Your task to perform on an android device: open app "Upside-Cash back on gas & food" Image 0: 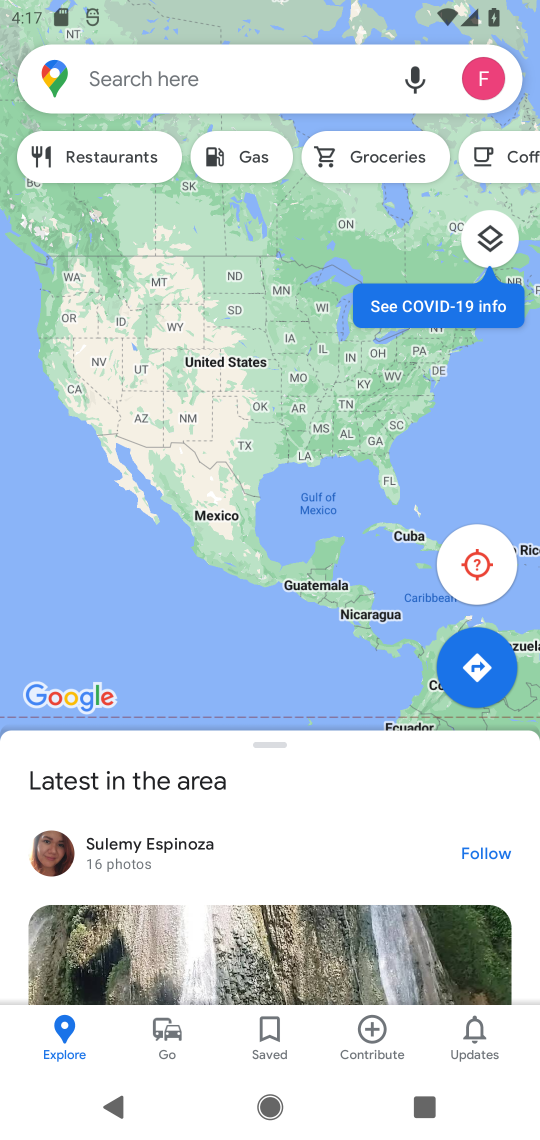
Step 0: press home button
Your task to perform on an android device: open app "Upside-Cash back on gas & food" Image 1: 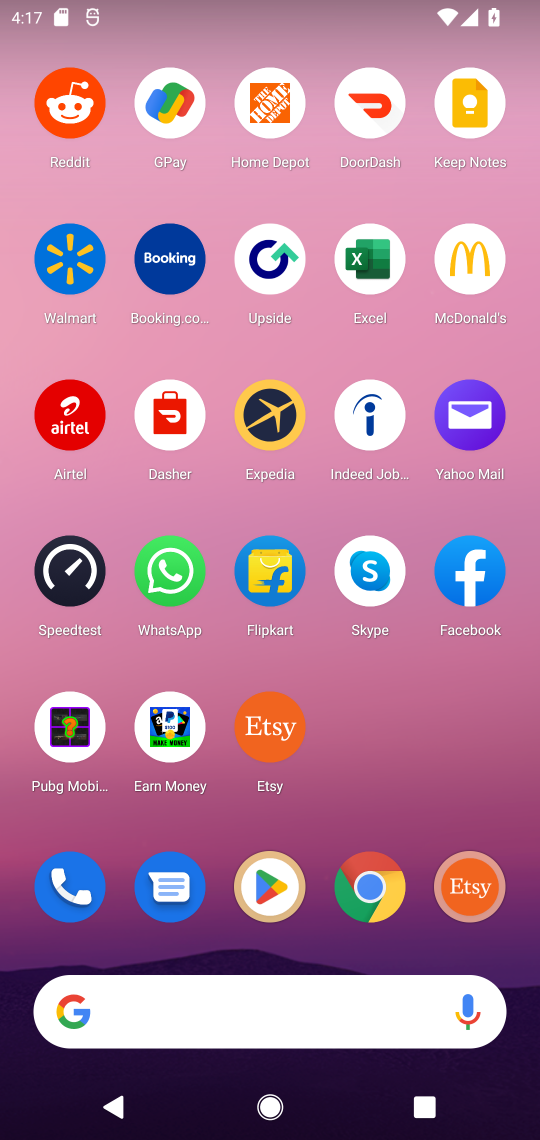
Step 1: click (263, 867)
Your task to perform on an android device: open app "Upside-Cash back on gas & food" Image 2: 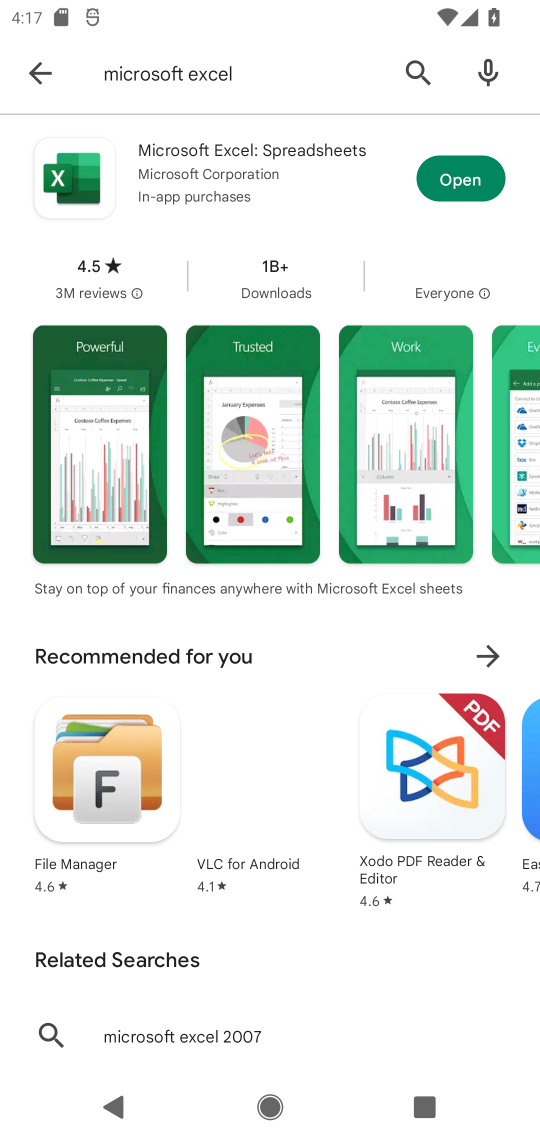
Step 2: click (29, 69)
Your task to perform on an android device: open app "Upside-Cash back on gas & food" Image 3: 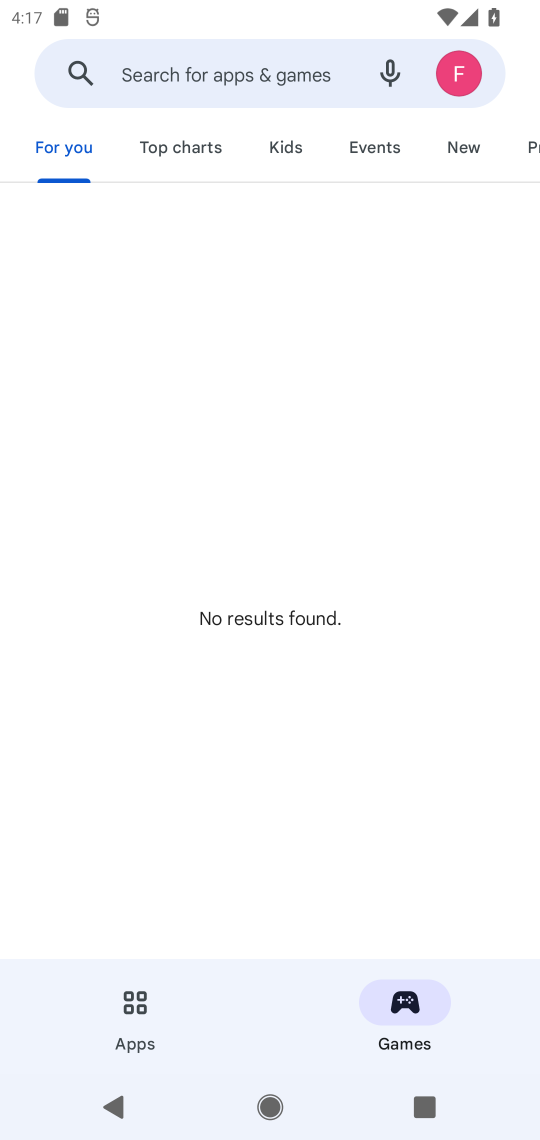
Step 3: click (153, 76)
Your task to perform on an android device: open app "Upside-Cash back on gas & food" Image 4: 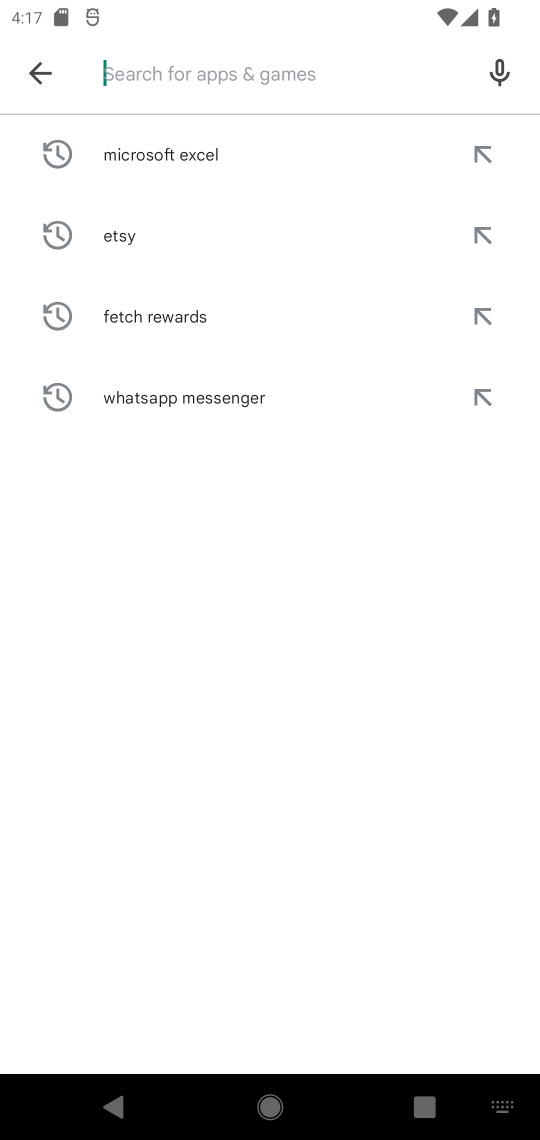
Step 4: type "Upside-Cash back on gas & food"
Your task to perform on an android device: open app "Upside-Cash back on gas & food" Image 5: 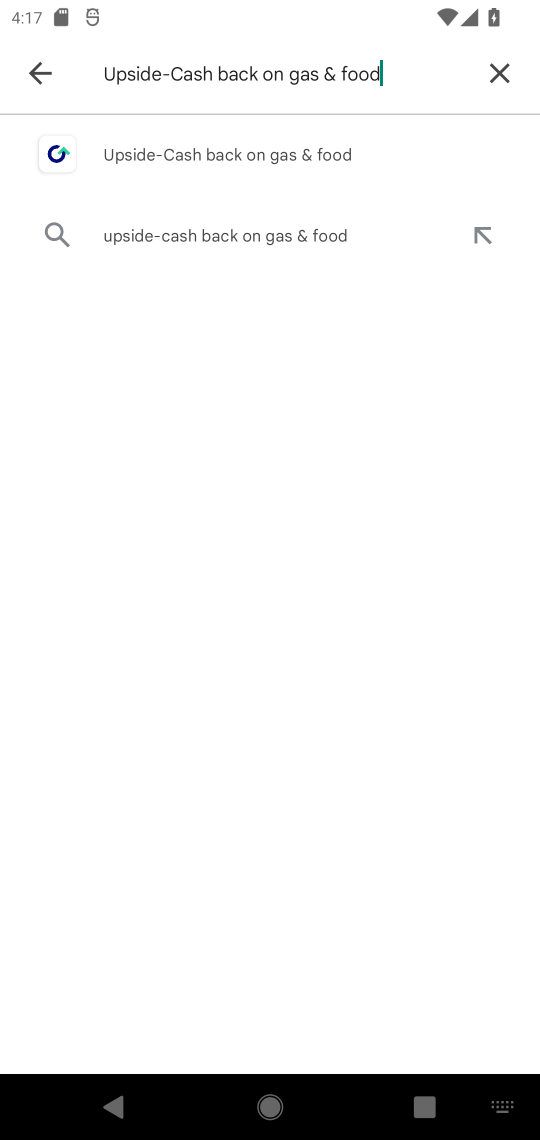
Step 5: click (194, 158)
Your task to perform on an android device: open app "Upside-Cash back on gas & food" Image 6: 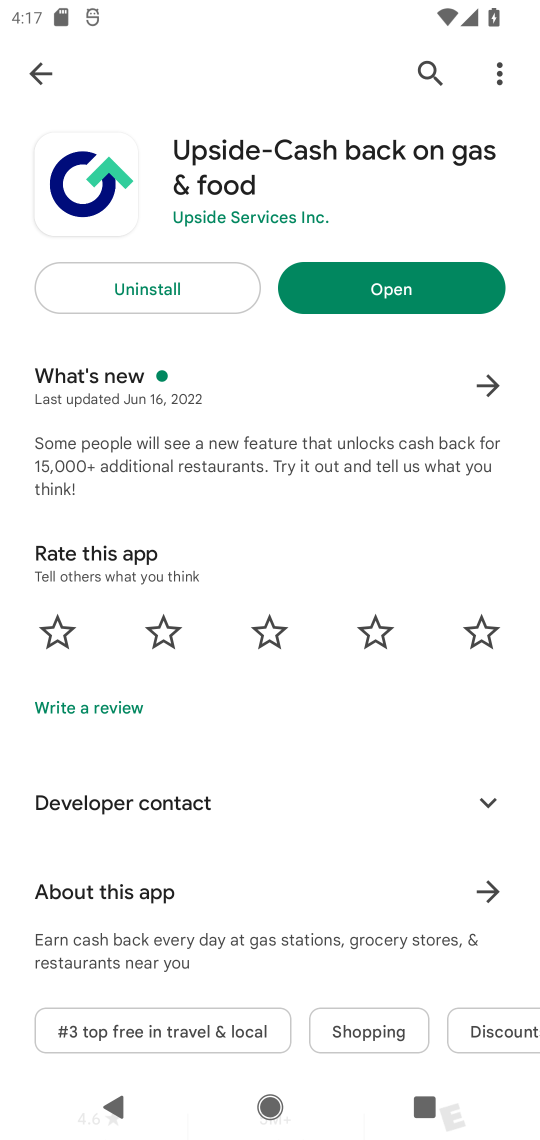
Step 6: click (380, 276)
Your task to perform on an android device: open app "Upside-Cash back on gas & food" Image 7: 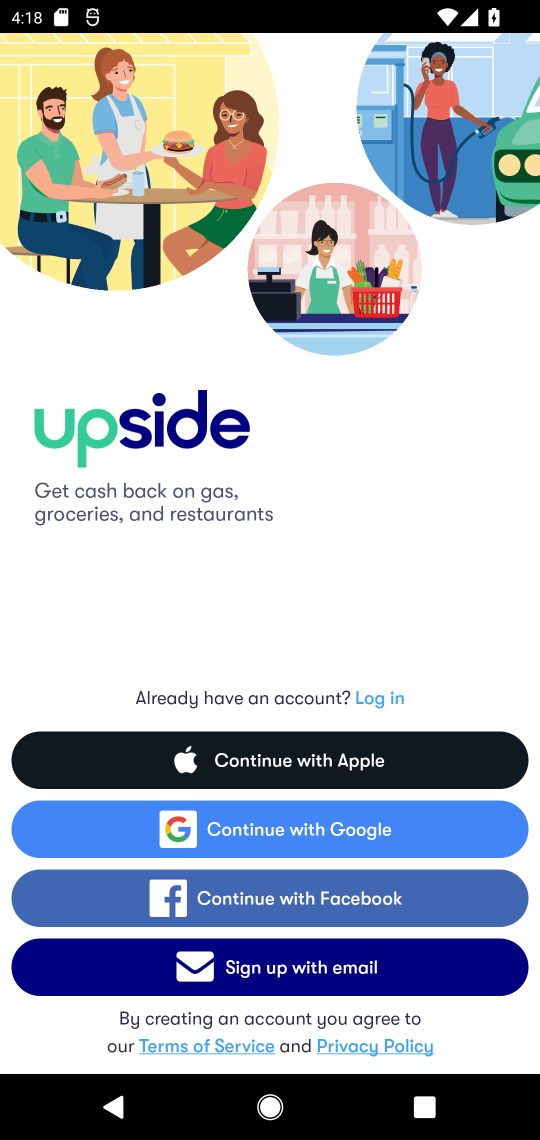
Step 7: task complete